Your task to perform on an android device: set default search engine in the chrome app Image 0: 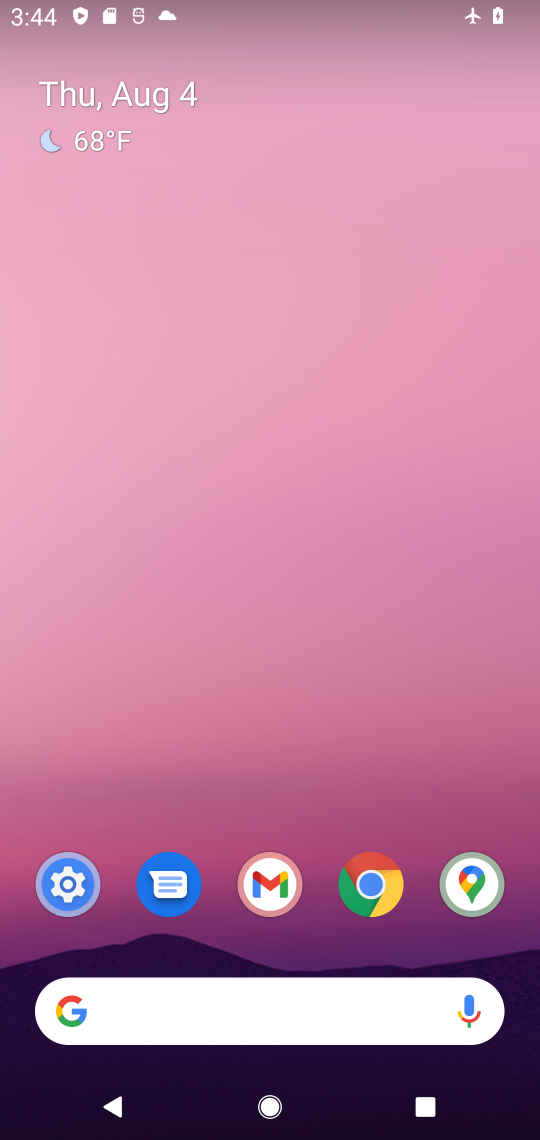
Step 0: drag from (239, 876) to (253, 213)
Your task to perform on an android device: set default search engine in the chrome app Image 1: 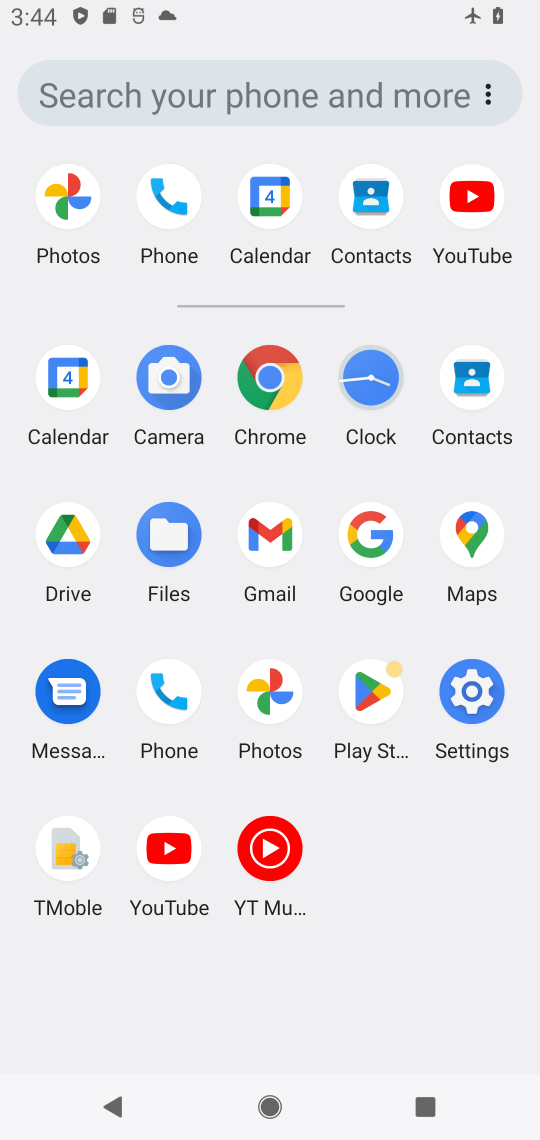
Step 1: click (251, 363)
Your task to perform on an android device: set default search engine in the chrome app Image 2: 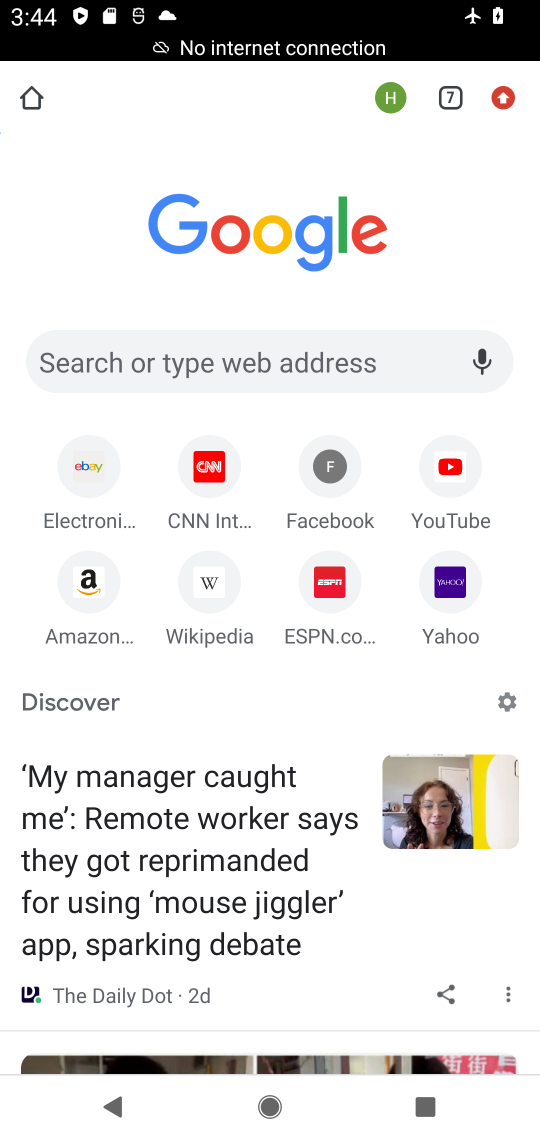
Step 2: click (514, 71)
Your task to perform on an android device: set default search engine in the chrome app Image 3: 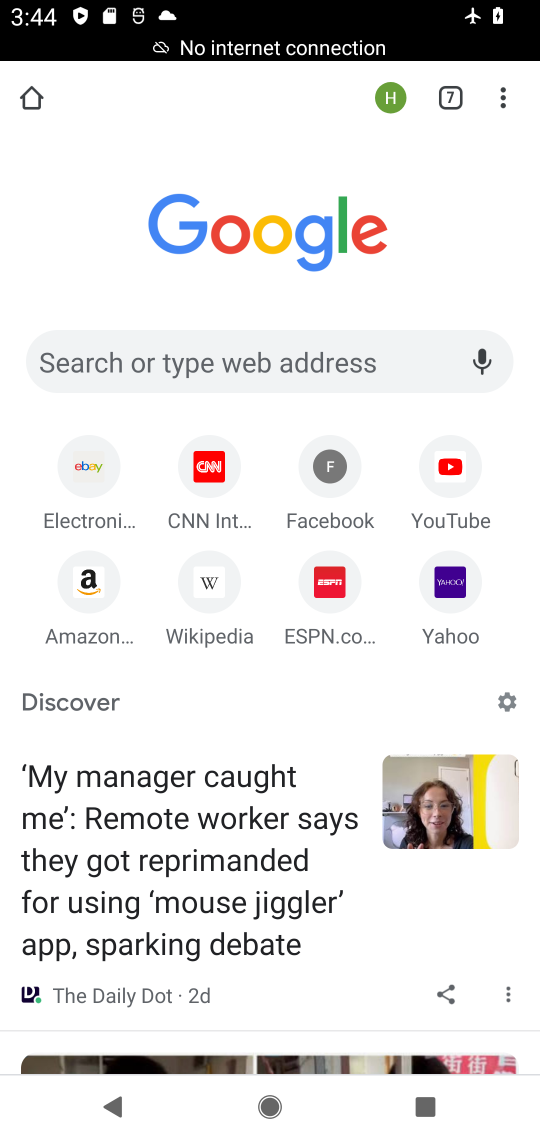
Step 3: click (495, 100)
Your task to perform on an android device: set default search engine in the chrome app Image 4: 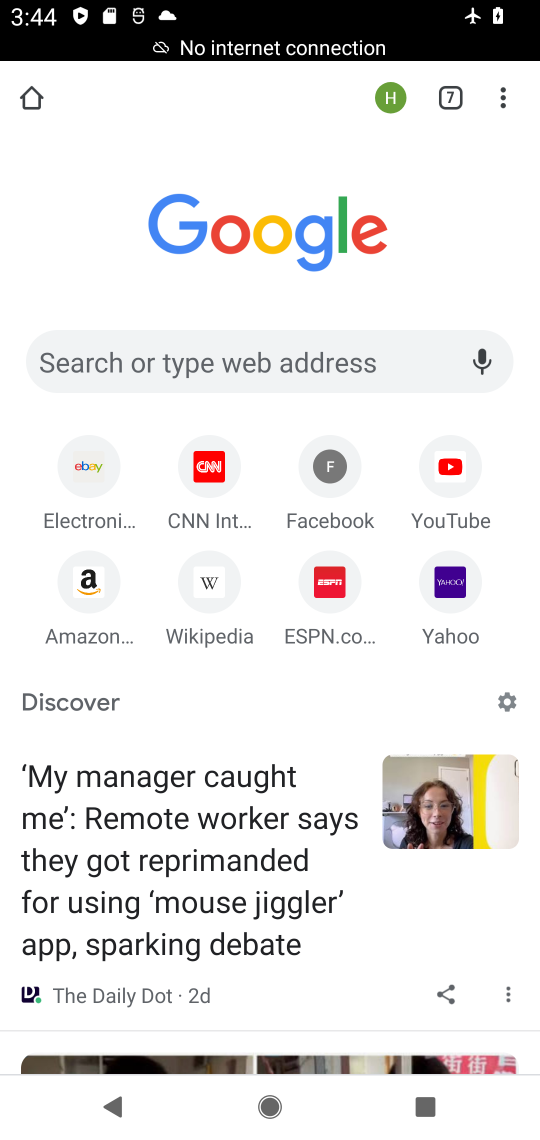
Step 4: click (499, 94)
Your task to perform on an android device: set default search engine in the chrome app Image 5: 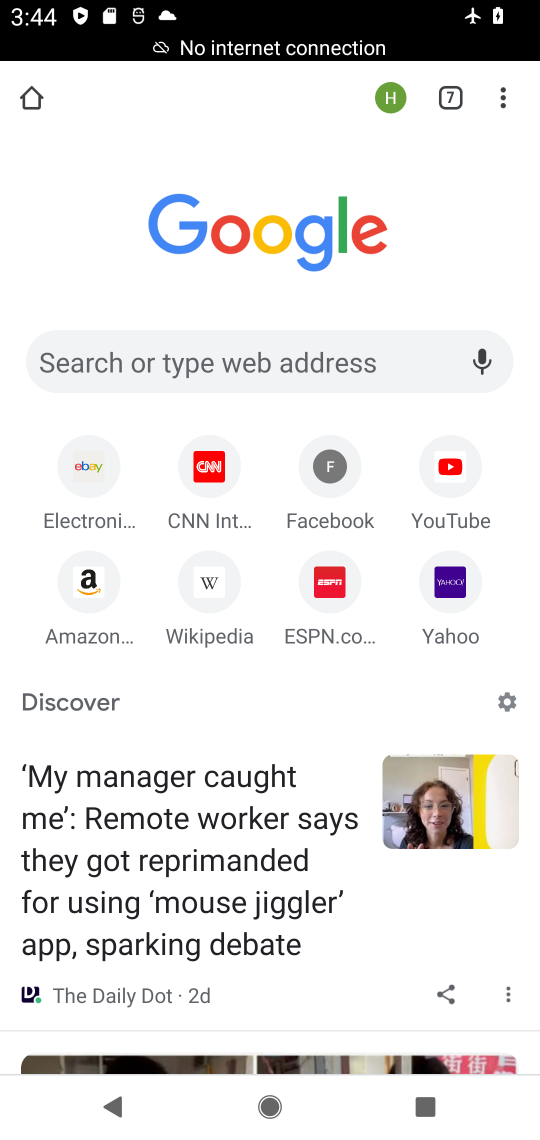
Step 5: click (505, 85)
Your task to perform on an android device: set default search engine in the chrome app Image 6: 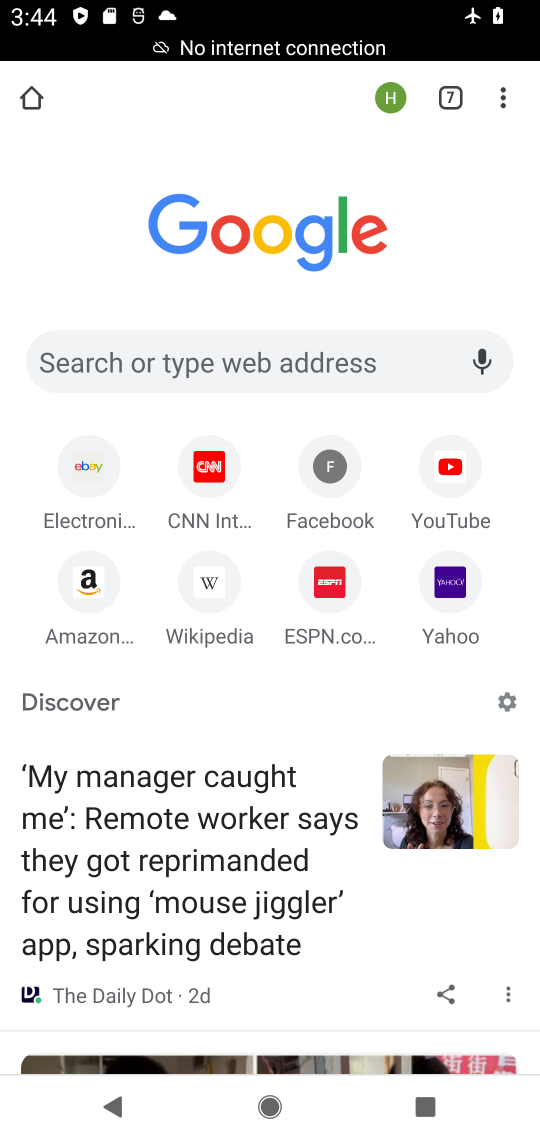
Step 6: click (494, 93)
Your task to perform on an android device: set default search engine in the chrome app Image 7: 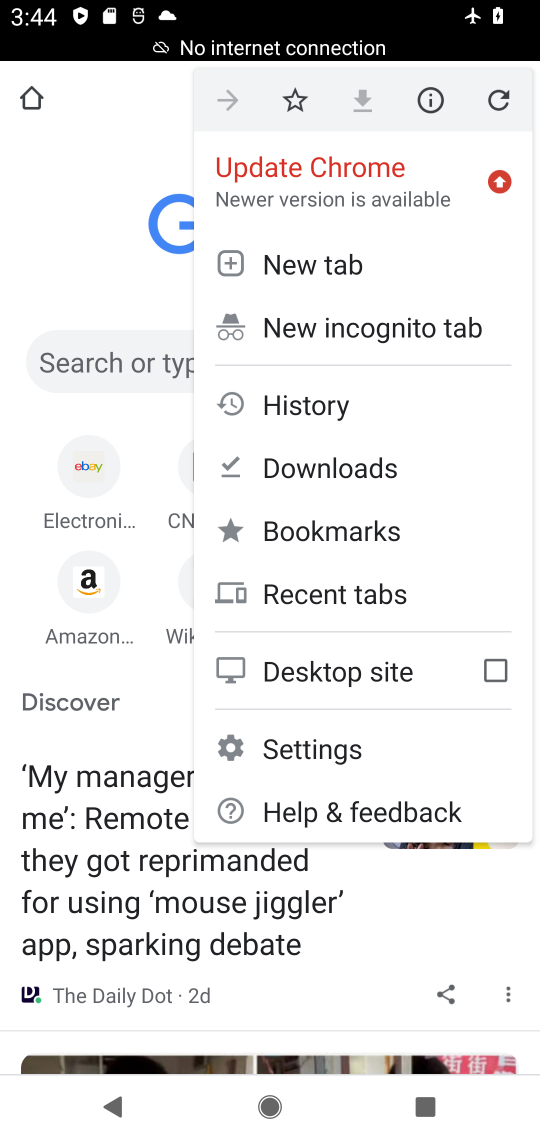
Step 7: click (267, 743)
Your task to perform on an android device: set default search engine in the chrome app Image 8: 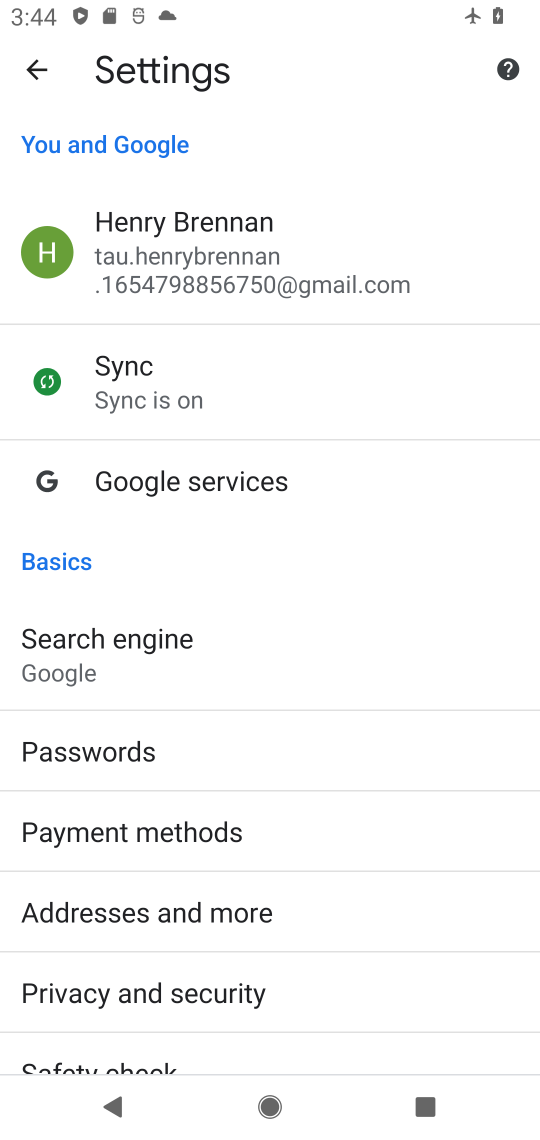
Step 8: click (106, 660)
Your task to perform on an android device: set default search engine in the chrome app Image 9: 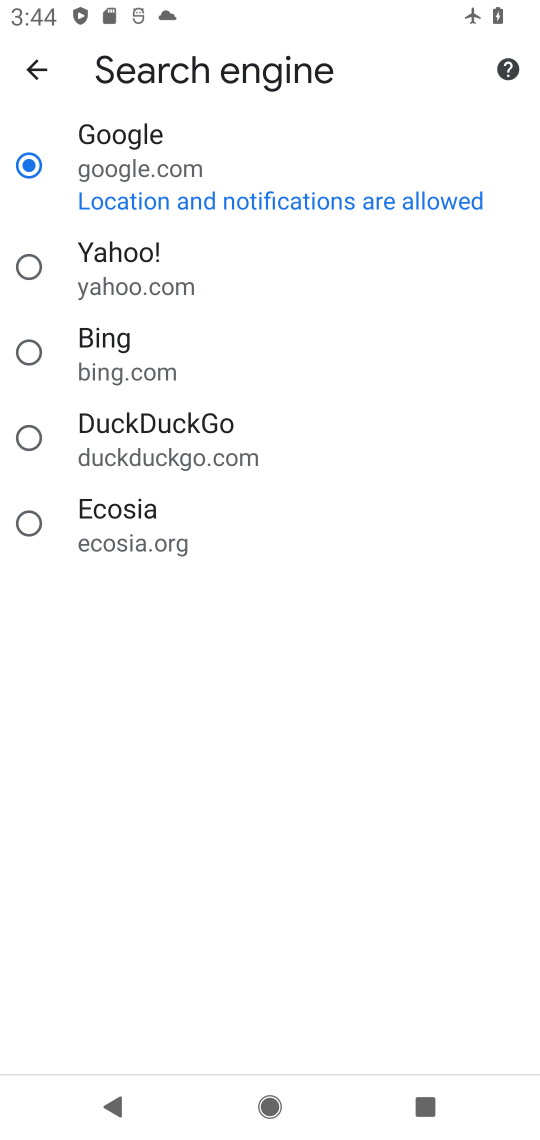
Step 9: click (81, 319)
Your task to perform on an android device: set default search engine in the chrome app Image 10: 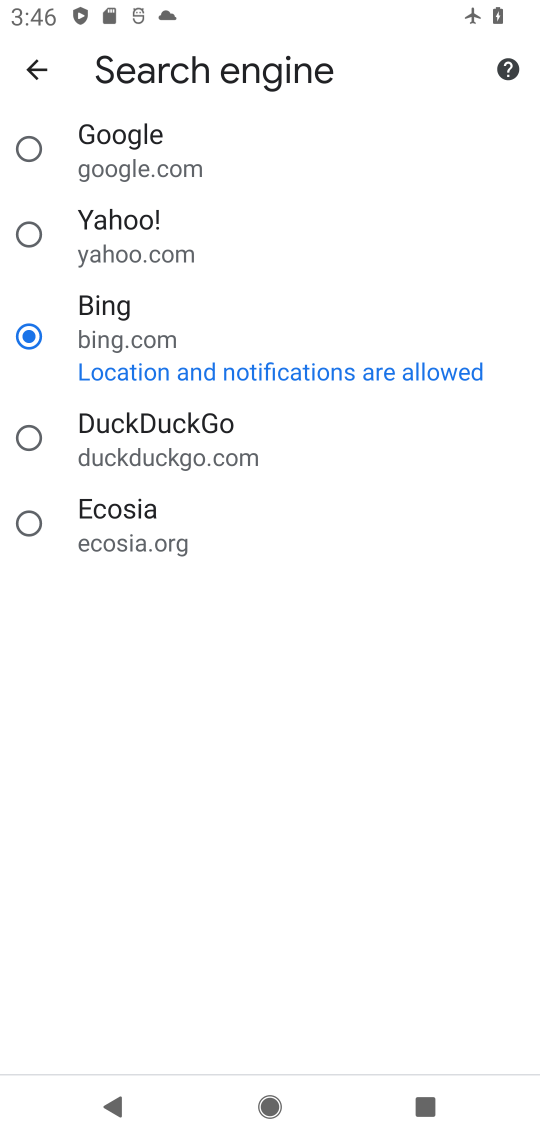
Step 10: task complete